Your task to perform on an android device: toggle show notifications on the lock screen Image 0: 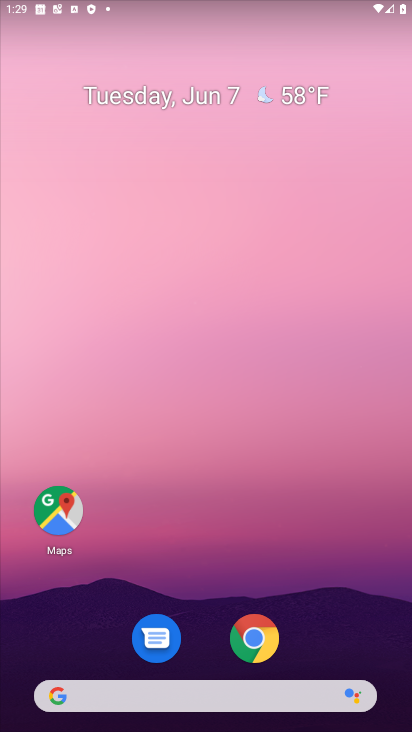
Step 0: drag from (213, 619) to (213, 334)
Your task to perform on an android device: toggle show notifications on the lock screen Image 1: 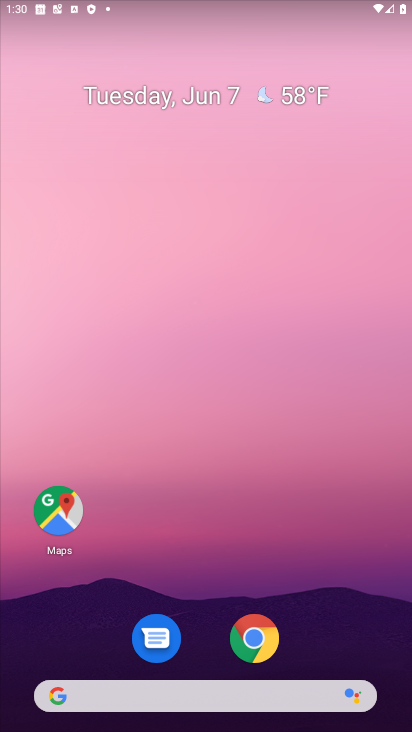
Step 1: drag from (207, 609) to (274, 182)
Your task to perform on an android device: toggle show notifications on the lock screen Image 2: 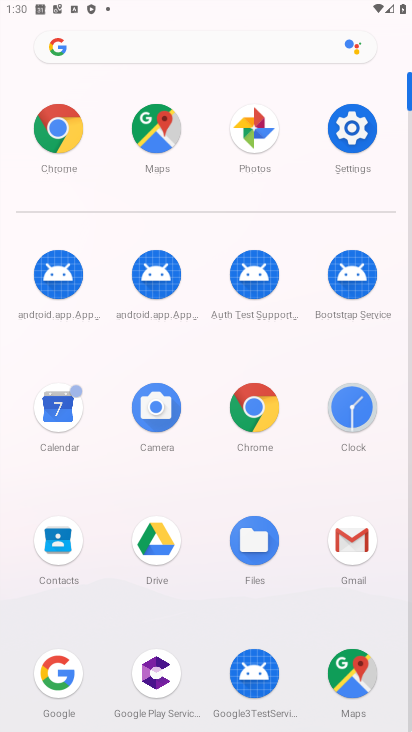
Step 2: click (358, 125)
Your task to perform on an android device: toggle show notifications on the lock screen Image 3: 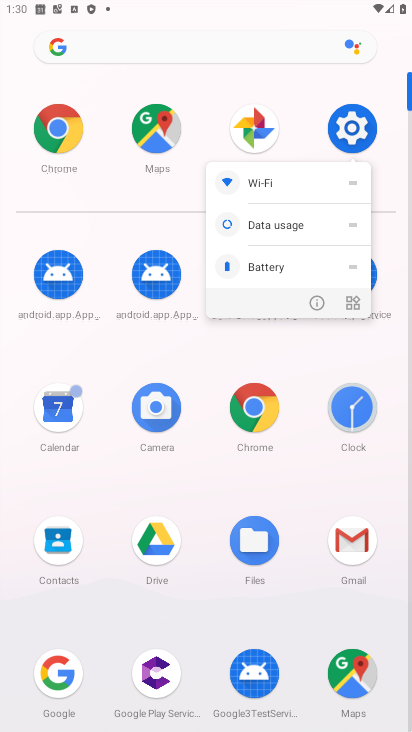
Step 3: click (359, 129)
Your task to perform on an android device: toggle show notifications on the lock screen Image 4: 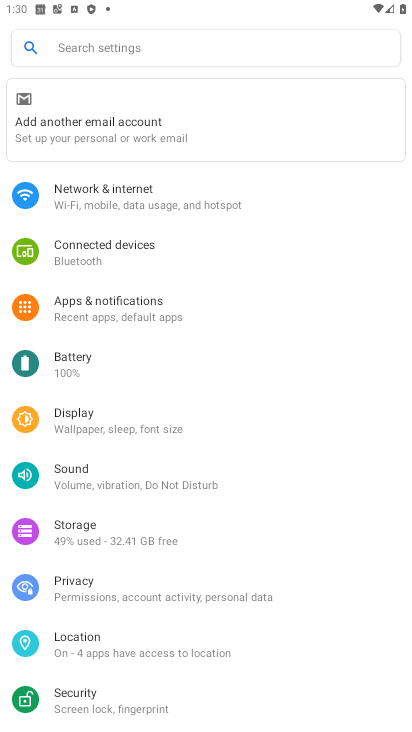
Step 4: click (134, 311)
Your task to perform on an android device: toggle show notifications on the lock screen Image 5: 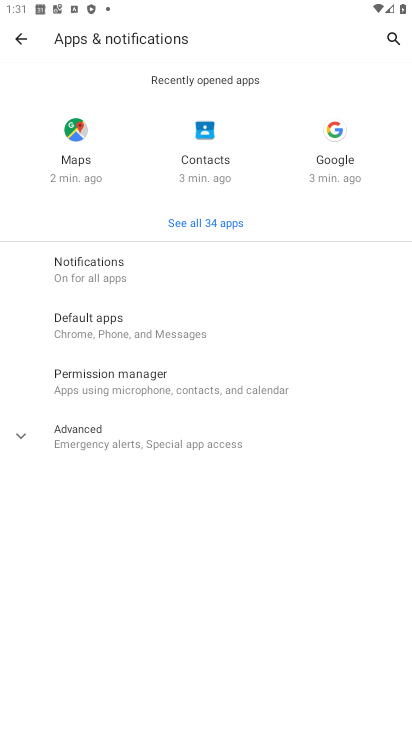
Step 5: click (100, 277)
Your task to perform on an android device: toggle show notifications on the lock screen Image 6: 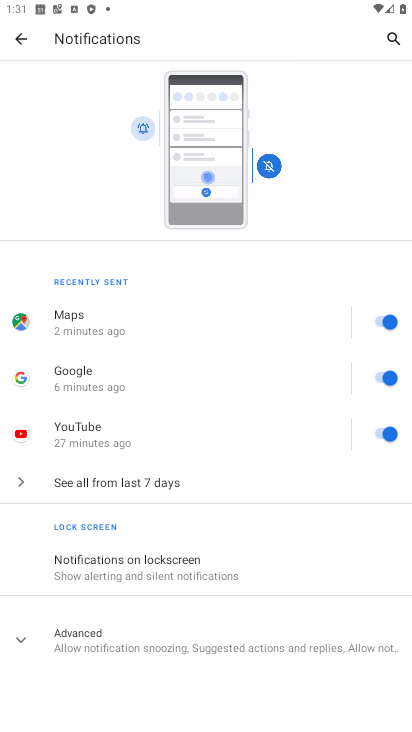
Step 6: click (148, 563)
Your task to perform on an android device: toggle show notifications on the lock screen Image 7: 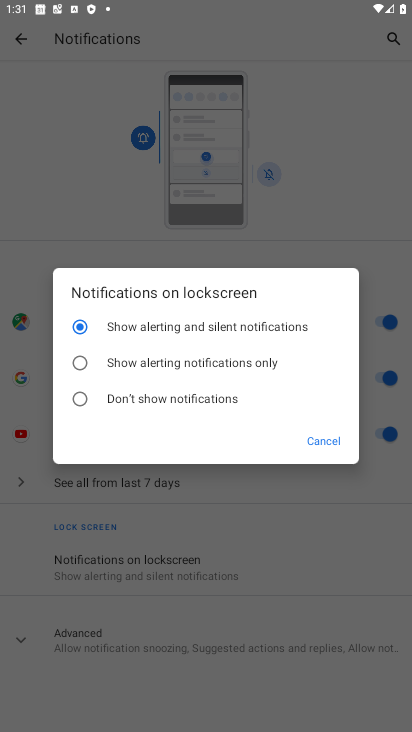
Step 7: task complete